Your task to perform on an android device: Open maps Image 0: 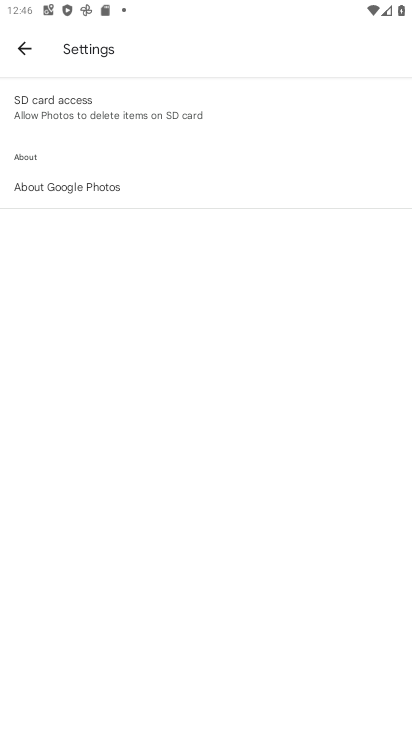
Step 0: press home button
Your task to perform on an android device: Open maps Image 1: 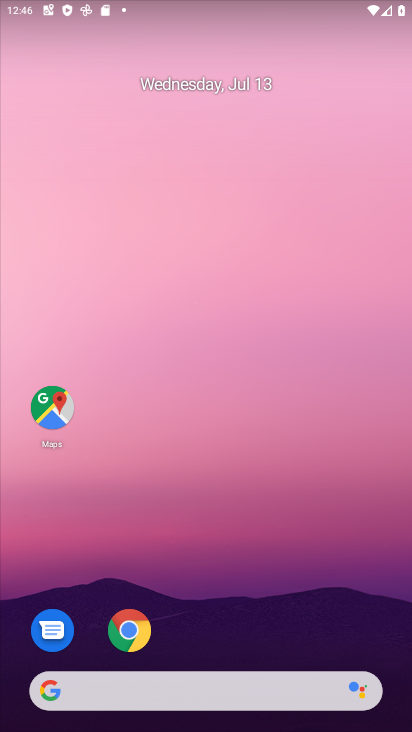
Step 1: drag from (381, 658) to (5, 560)
Your task to perform on an android device: Open maps Image 2: 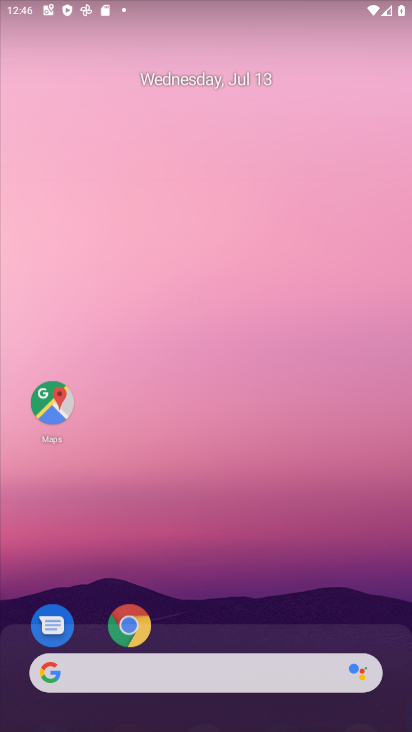
Step 2: click (56, 571)
Your task to perform on an android device: Open maps Image 3: 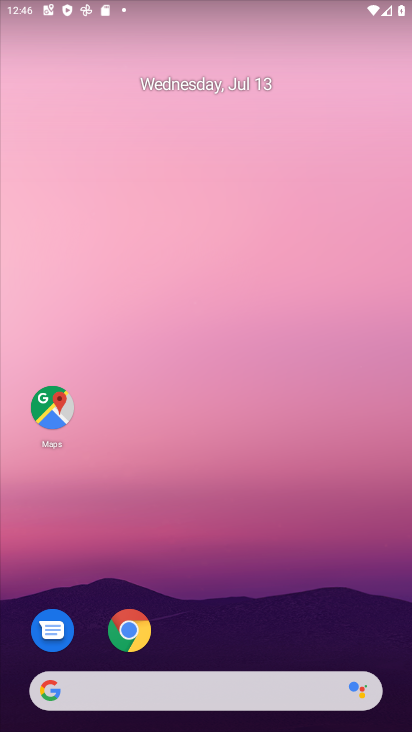
Step 3: click (54, 406)
Your task to perform on an android device: Open maps Image 4: 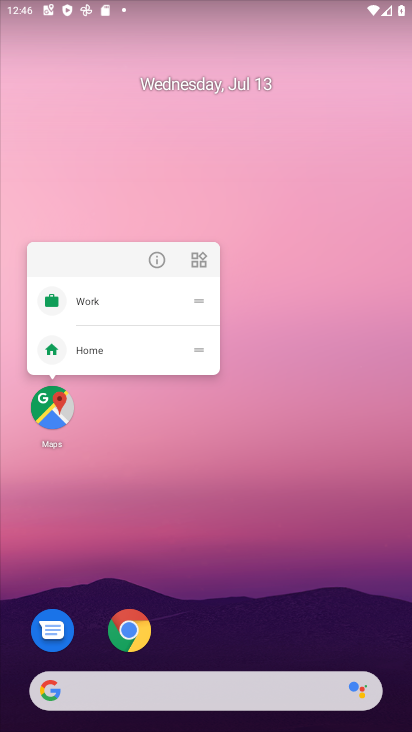
Step 4: click (54, 406)
Your task to perform on an android device: Open maps Image 5: 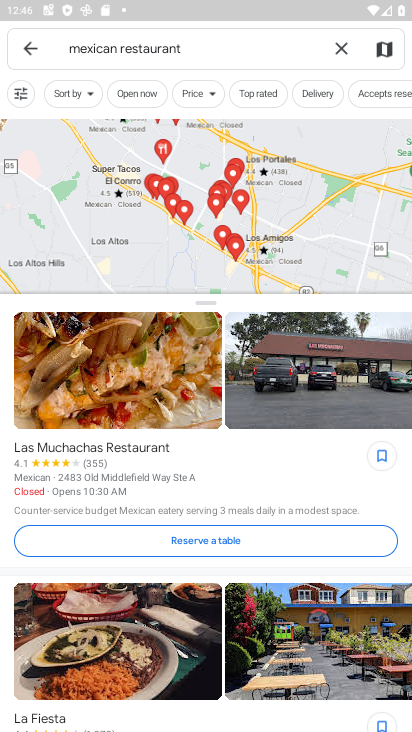
Step 5: click (341, 52)
Your task to perform on an android device: Open maps Image 6: 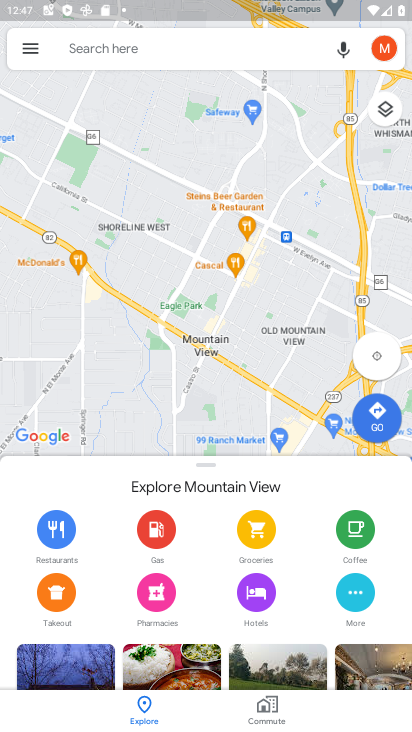
Step 6: task complete